Your task to perform on an android device: Go to Wikipedia Image 0: 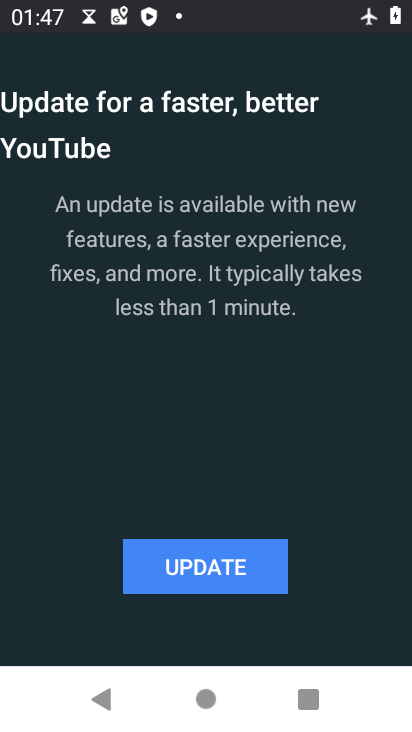
Step 0: press home button
Your task to perform on an android device: Go to Wikipedia Image 1: 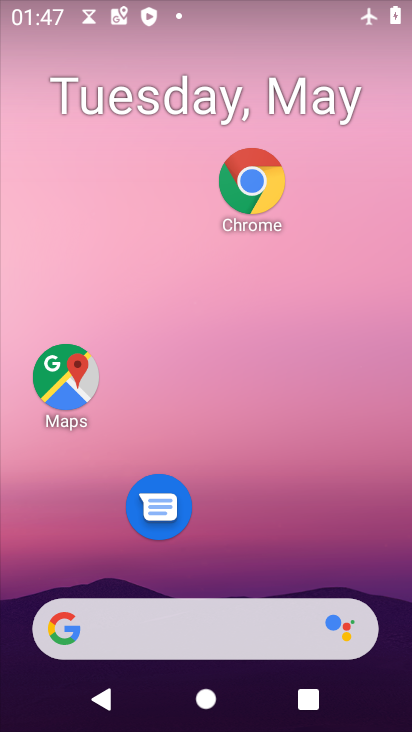
Step 1: drag from (282, 557) to (284, 339)
Your task to perform on an android device: Go to Wikipedia Image 2: 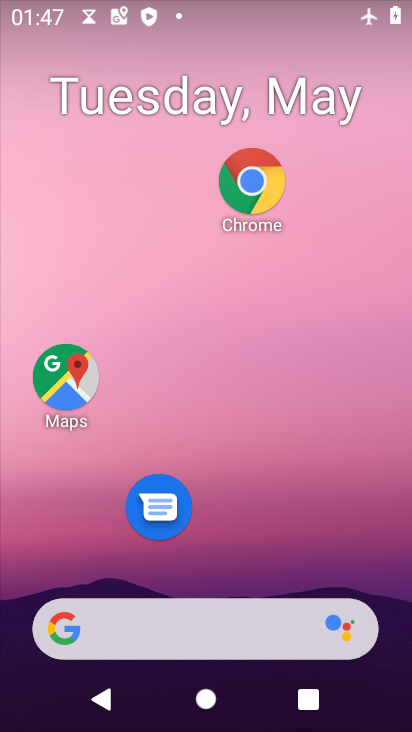
Step 2: drag from (305, 456) to (305, 233)
Your task to perform on an android device: Go to Wikipedia Image 3: 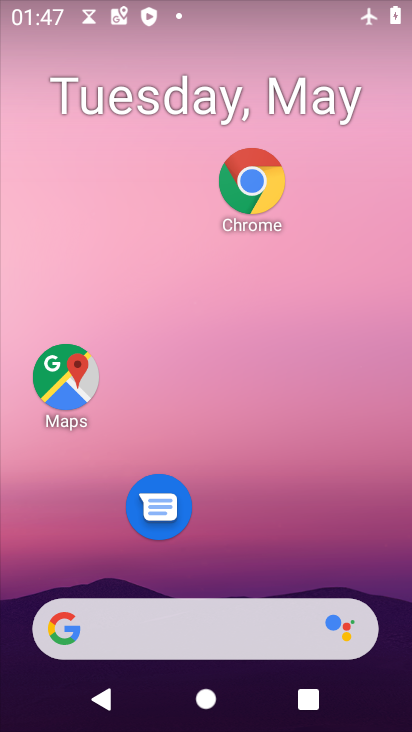
Step 3: drag from (284, 576) to (296, 252)
Your task to perform on an android device: Go to Wikipedia Image 4: 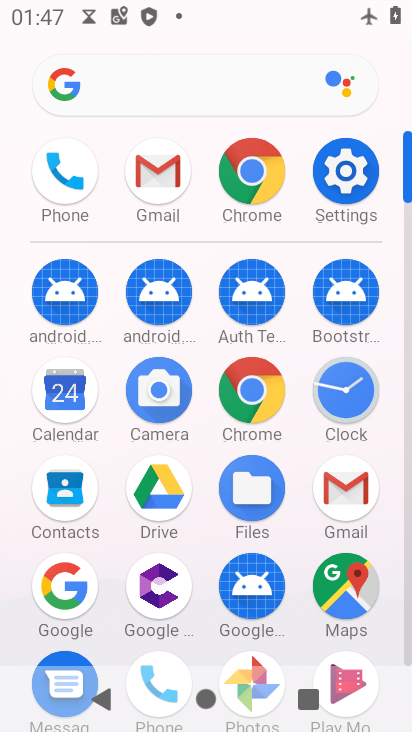
Step 4: click (251, 159)
Your task to perform on an android device: Go to Wikipedia Image 5: 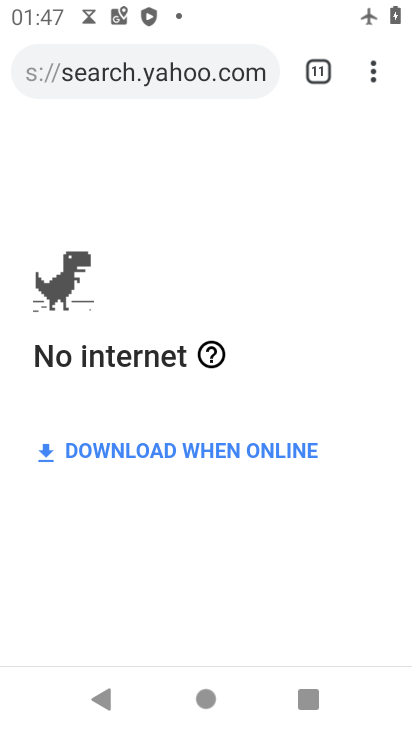
Step 5: click (368, 71)
Your task to perform on an android device: Go to Wikipedia Image 6: 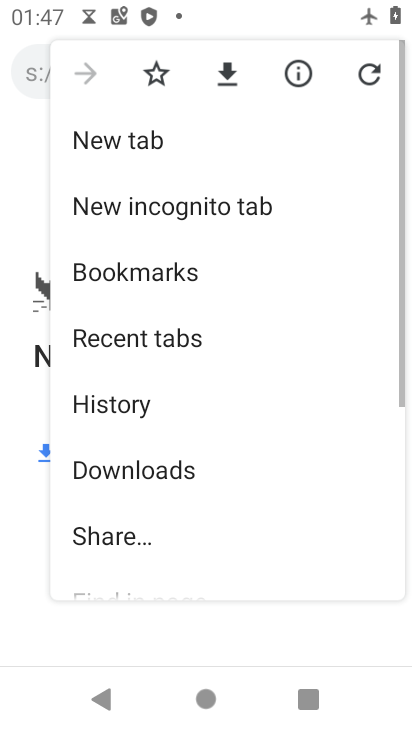
Step 6: click (163, 150)
Your task to perform on an android device: Go to Wikipedia Image 7: 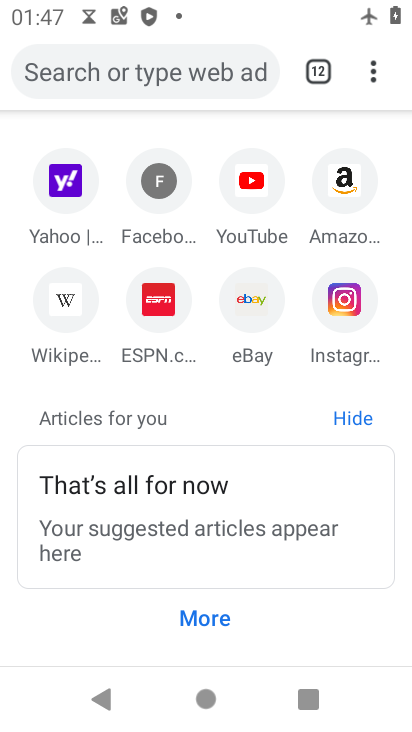
Step 7: click (66, 291)
Your task to perform on an android device: Go to Wikipedia Image 8: 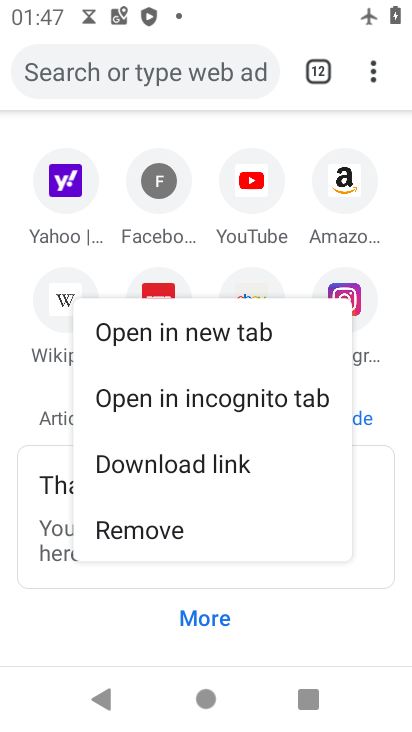
Step 8: click (66, 291)
Your task to perform on an android device: Go to Wikipedia Image 9: 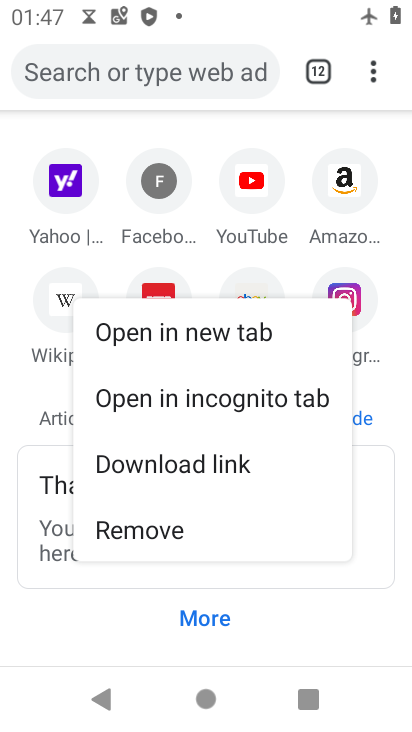
Step 9: click (66, 291)
Your task to perform on an android device: Go to Wikipedia Image 10: 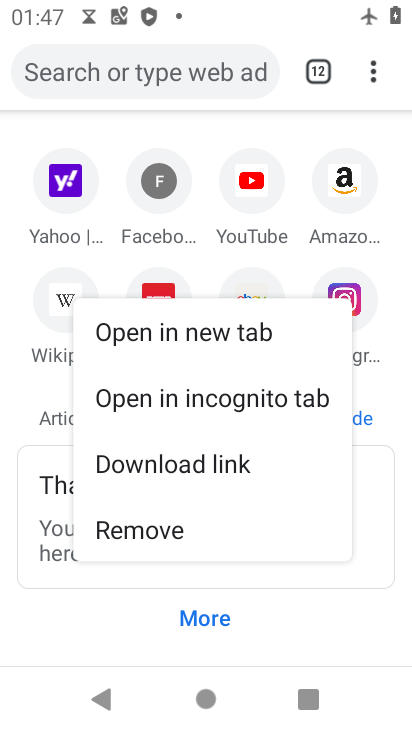
Step 10: click (56, 290)
Your task to perform on an android device: Go to Wikipedia Image 11: 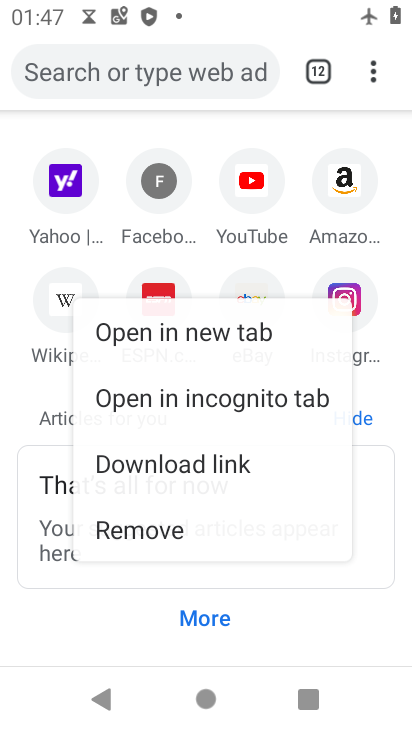
Step 11: click (44, 289)
Your task to perform on an android device: Go to Wikipedia Image 12: 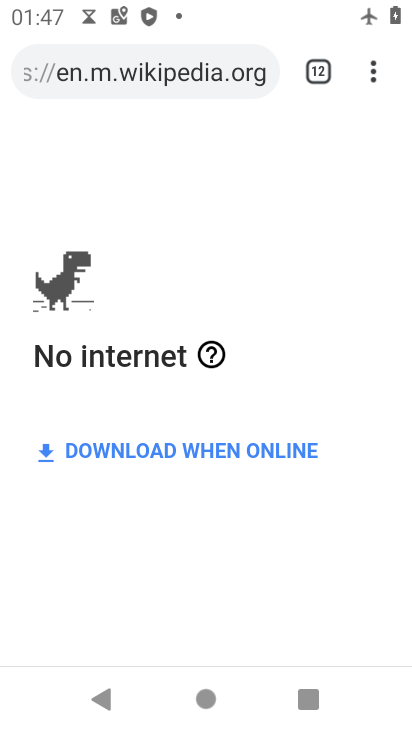
Step 12: click (53, 292)
Your task to perform on an android device: Go to Wikipedia Image 13: 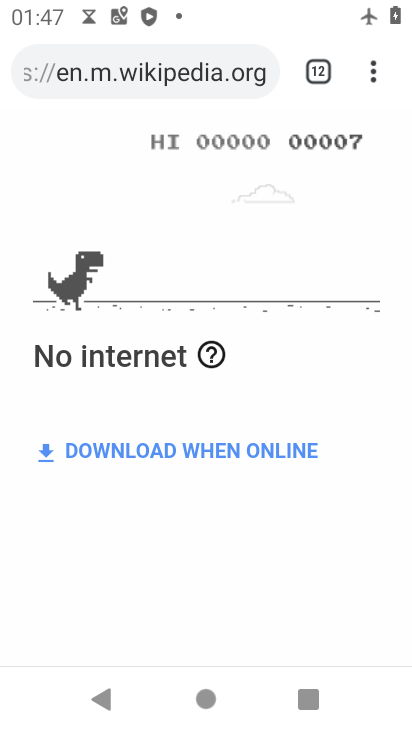
Step 13: task complete